Your task to perform on an android device: uninstall "Upside-Cash back on gas & food" Image 0: 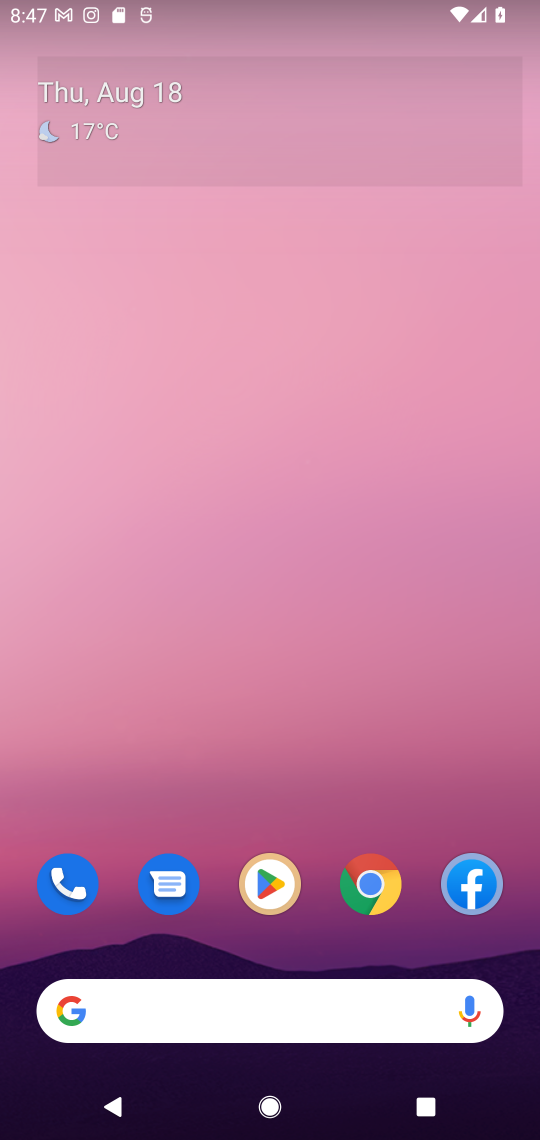
Step 0: drag from (247, 1019) to (271, 79)
Your task to perform on an android device: uninstall "Upside-Cash back on gas & food" Image 1: 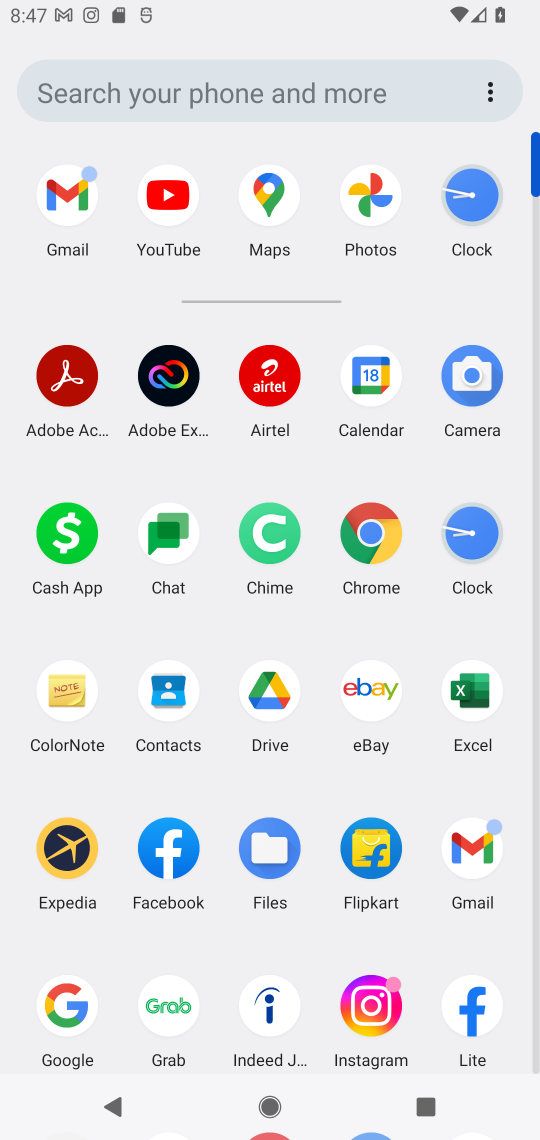
Step 1: drag from (205, 957) to (180, 233)
Your task to perform on an android device: uninstall "Upside-Cash back on gas & food" Image 2: 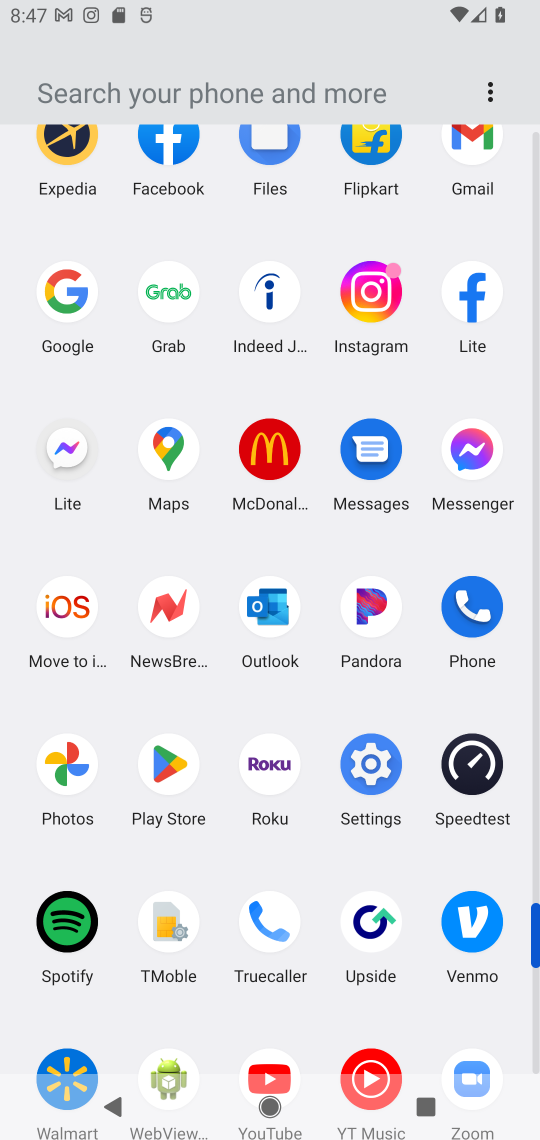
Step 2: click (170, 766)
Your task to perform on an android device: uninstall "Upside-Cash back on gas & food" Image 3: 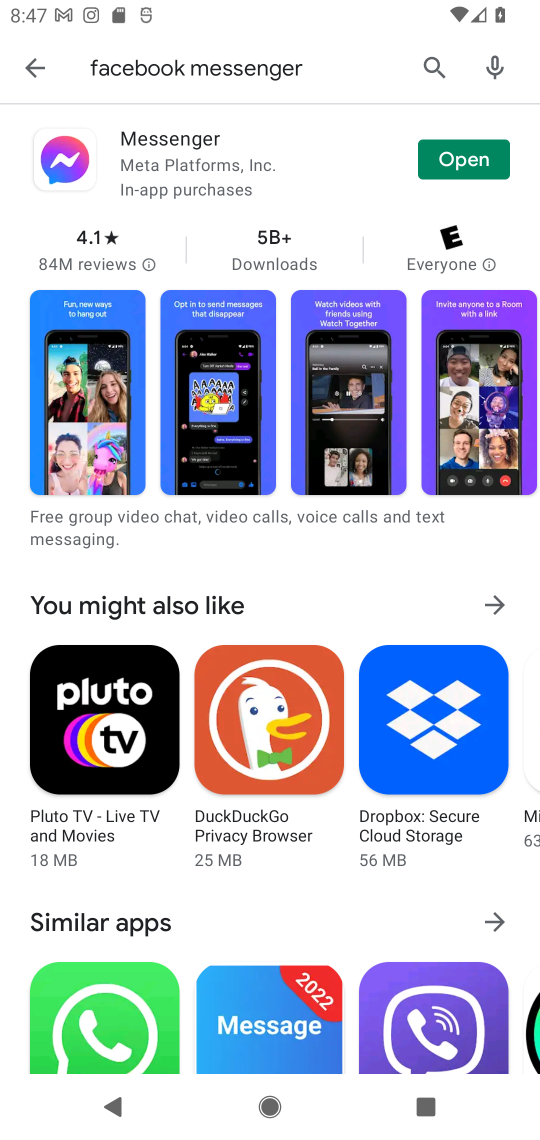
Step 3: press back button
Your task to perform on an android device: uninstall "Upside-Cash back on gas & food" Image 4: 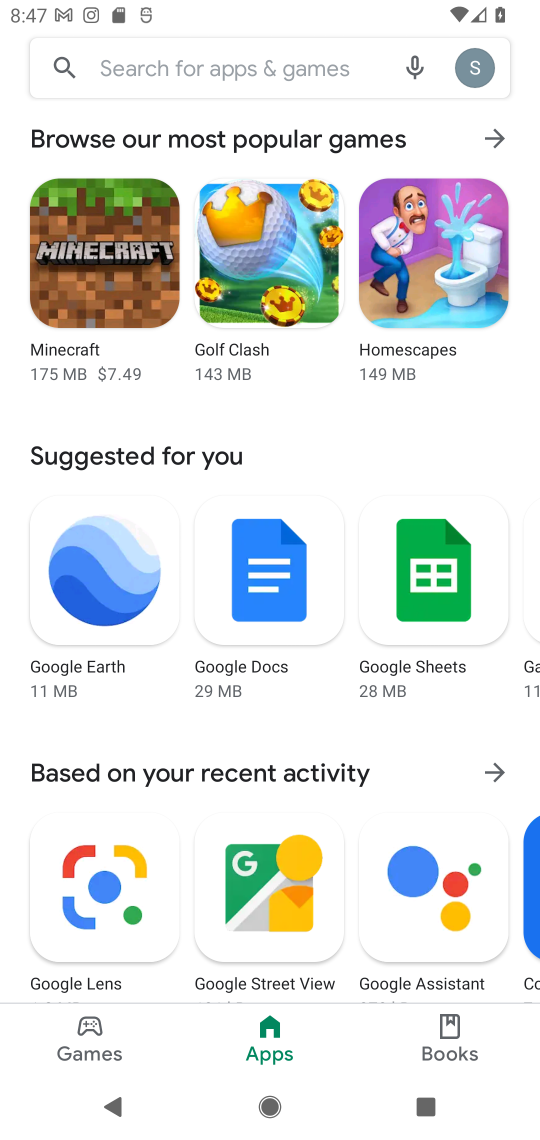
Step 4: click (287, 58)
Your task to perform on an android device: uninstall "Upside-Cash back on gas & food" Image 5: 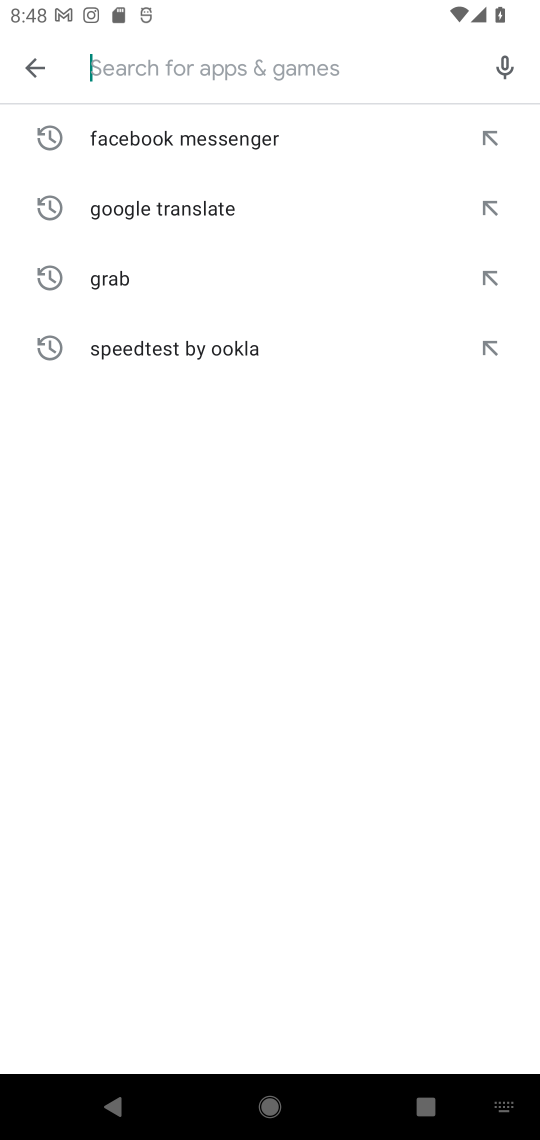
Step 5: type "Upside-Cash back on gas & food"
Your task to perform on an android device: uninstall "Upside-Cash back on gas & food" Image 6: 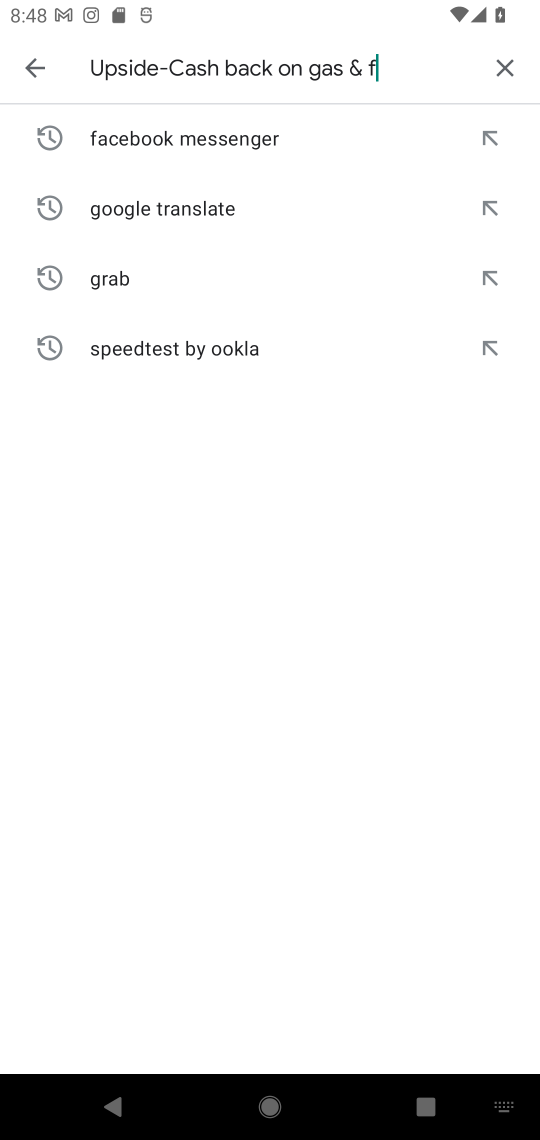
Step 6: type ""
Your task to perform on an android device: uninstall "Upside-Cash back on gas & food" Image 7: 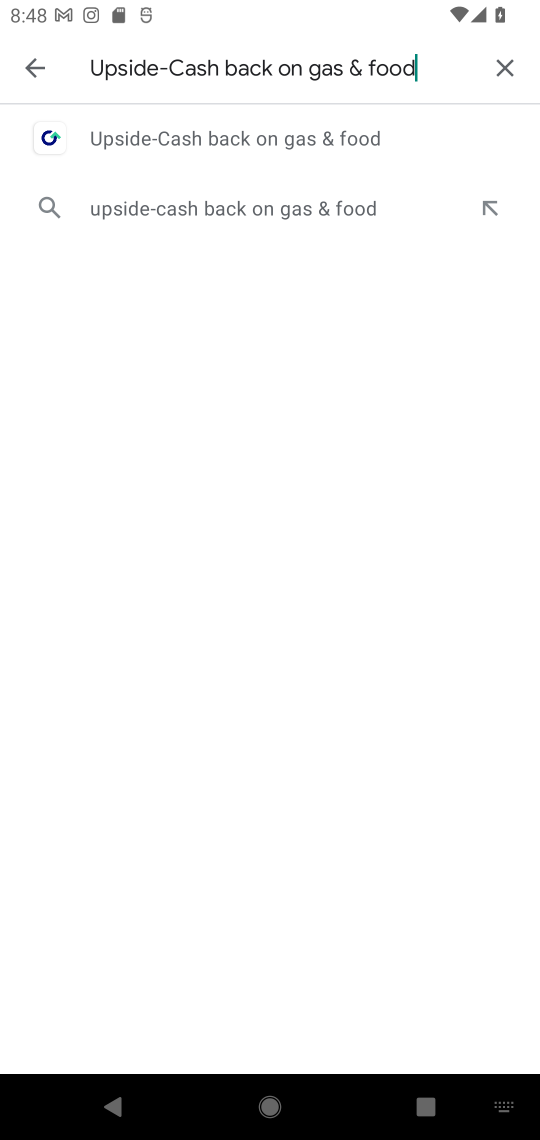
Step 7: click (177, 146)
Your task to perform on an android device: uninstall "Upside-Cash back on gas & food" Image 8: 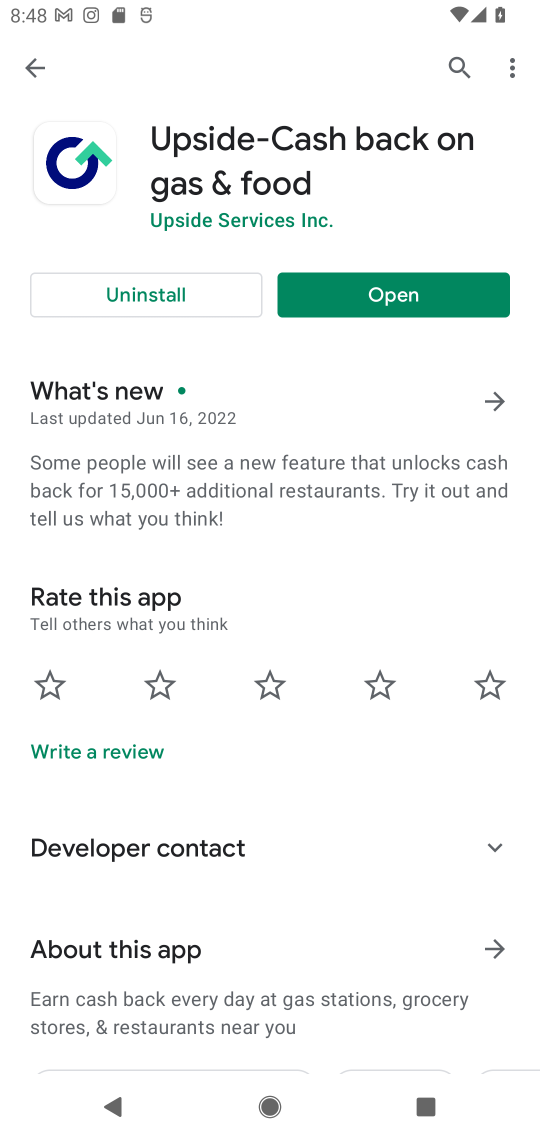
Step 8: click (191, 293)
Your task to perform on an android device: uninstall "Upside-Cash back on gas & food" Image 9: 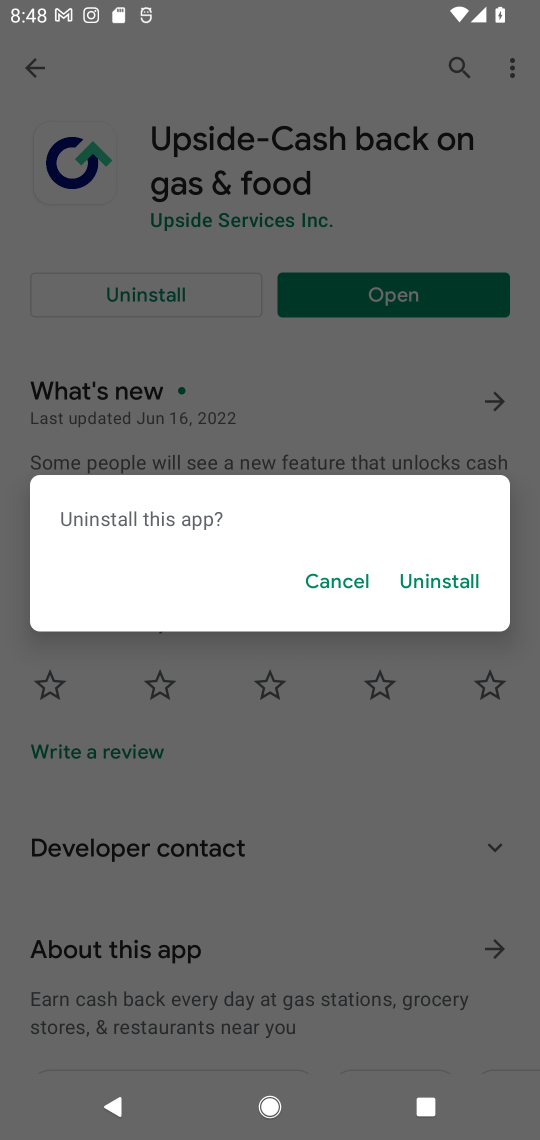
Step 9: click (437, 580)
Your task to perform on an android device: uninstall "Upside-Cash back on gas & food" Image 10: 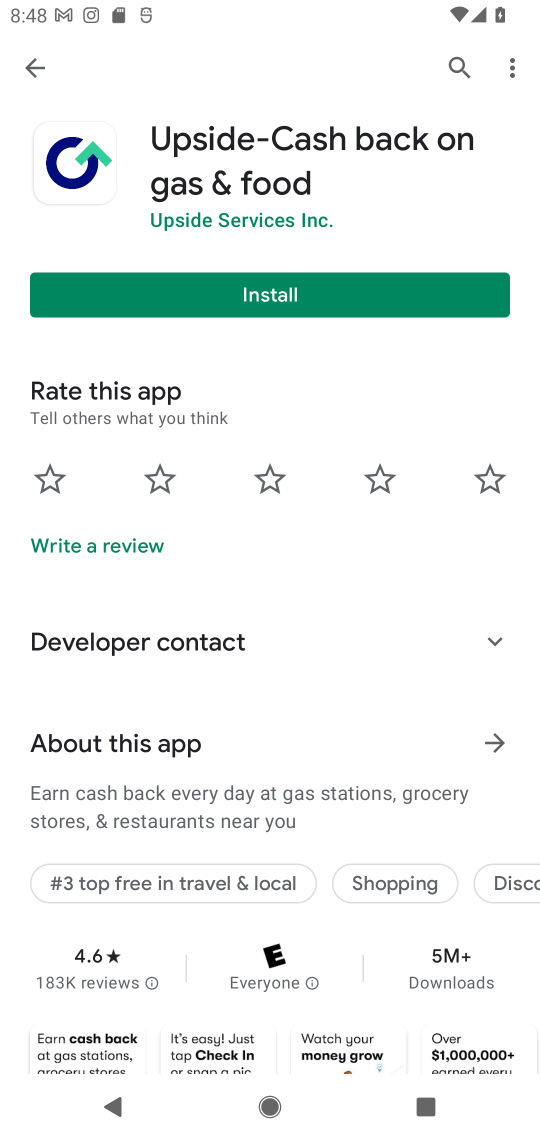
Step 10: task complete